Your task to perform on an android device: Open CNN.com Image 0: 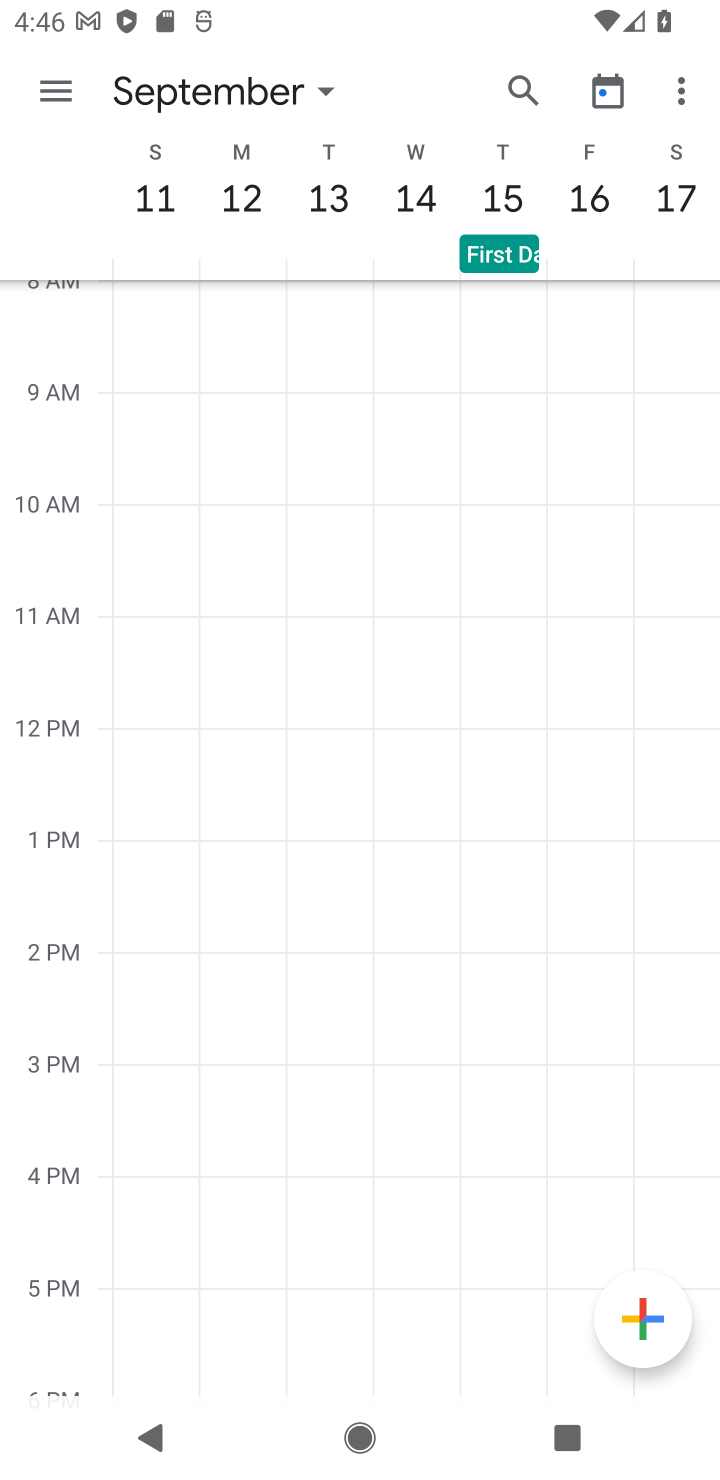
Step 0: press home button
Your task to perform on an android device: Open CNN.com Image 1: 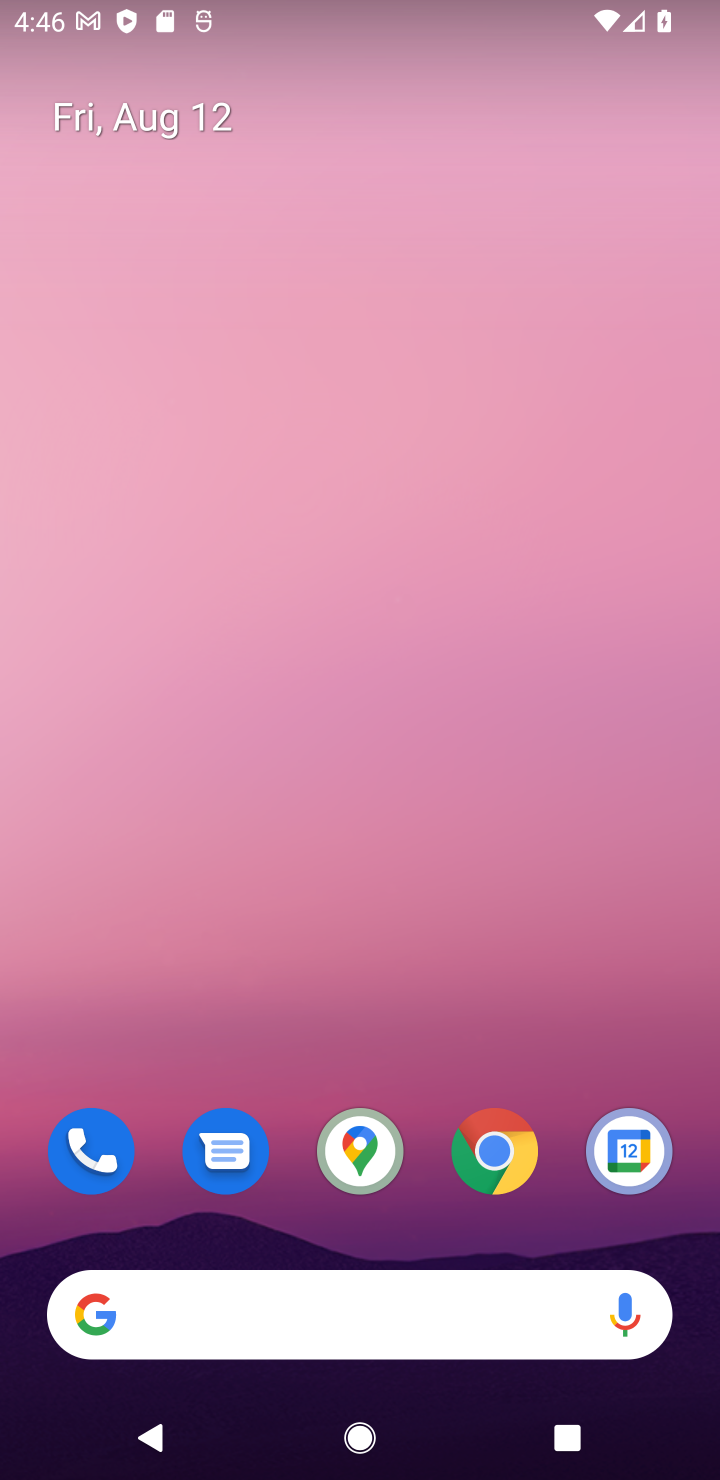
Step 1: drag from (436, 993) to (483, 15)
Your task to perform on an android device: Open CNN.com Image 2: 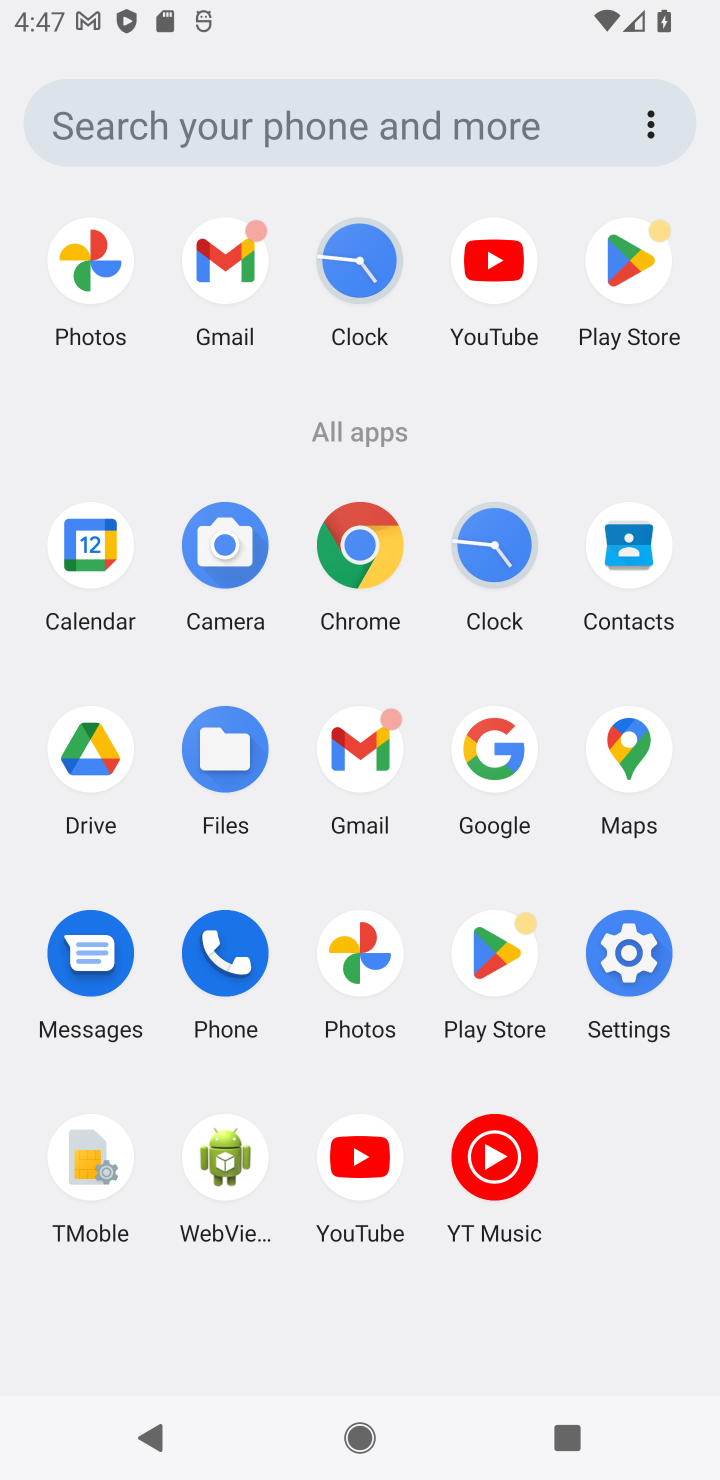
Step 2: click (360, 552)
Your task to perform on an android device: Open CNN.com Image 3: 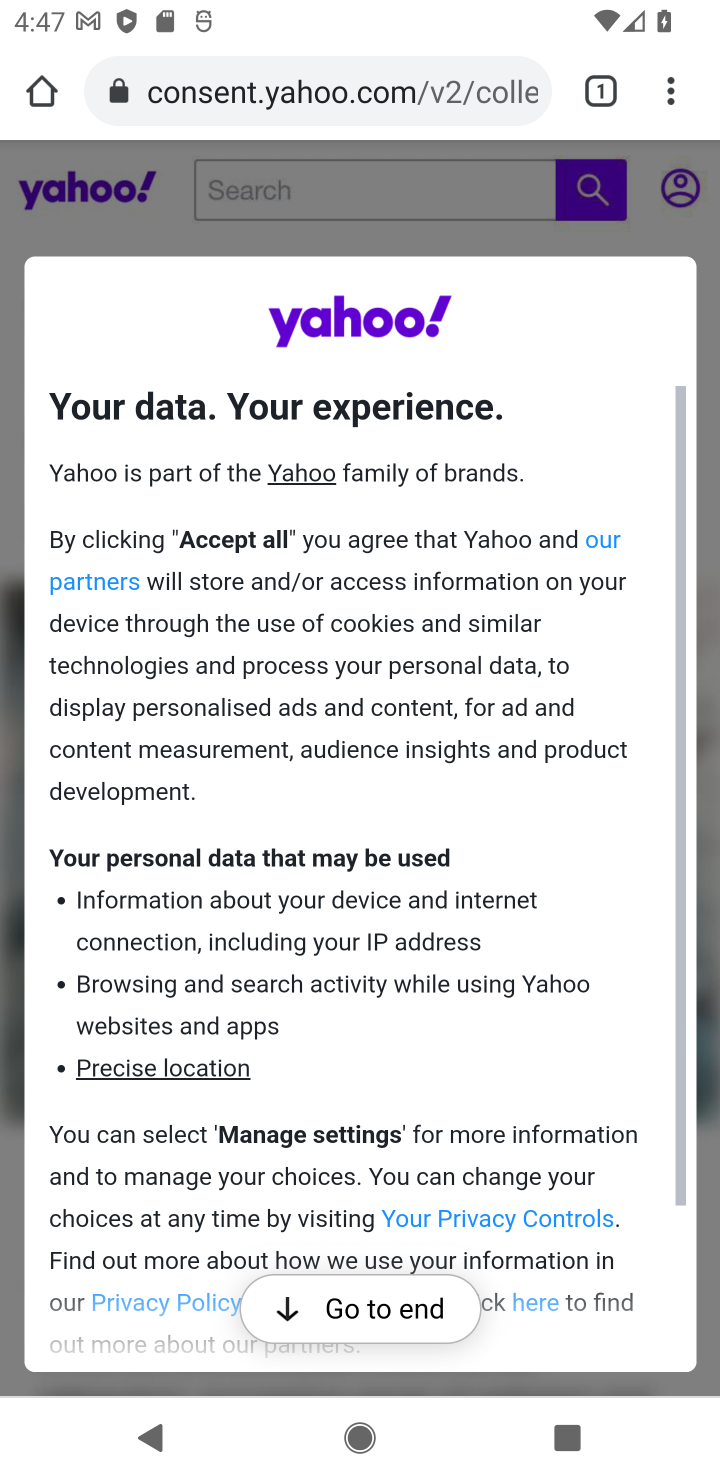
Step 3: click (448, 93)
Your task to perform on an android device: Open CNN.com Image 4: 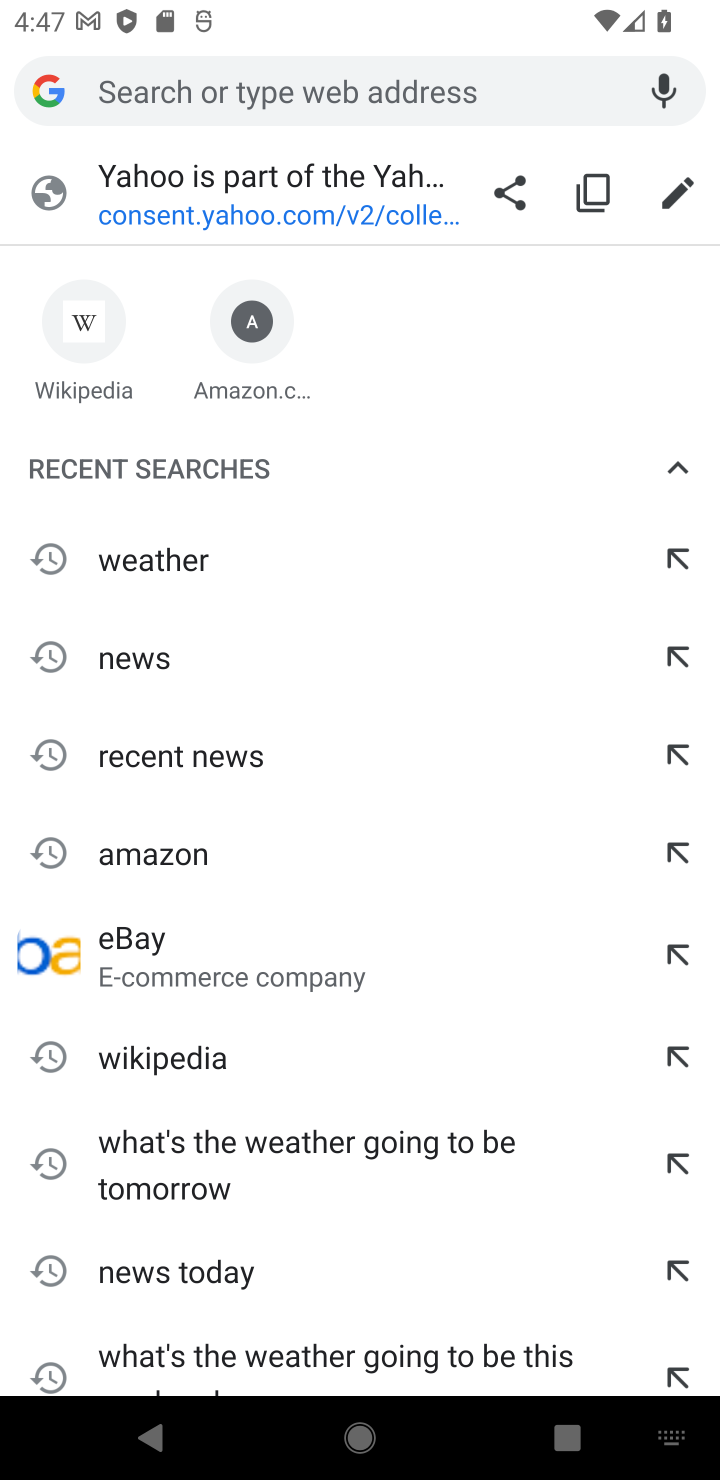
Step 4: type "cnn.com"
Your task to perform on an android device: Open CNN.com Image 5: 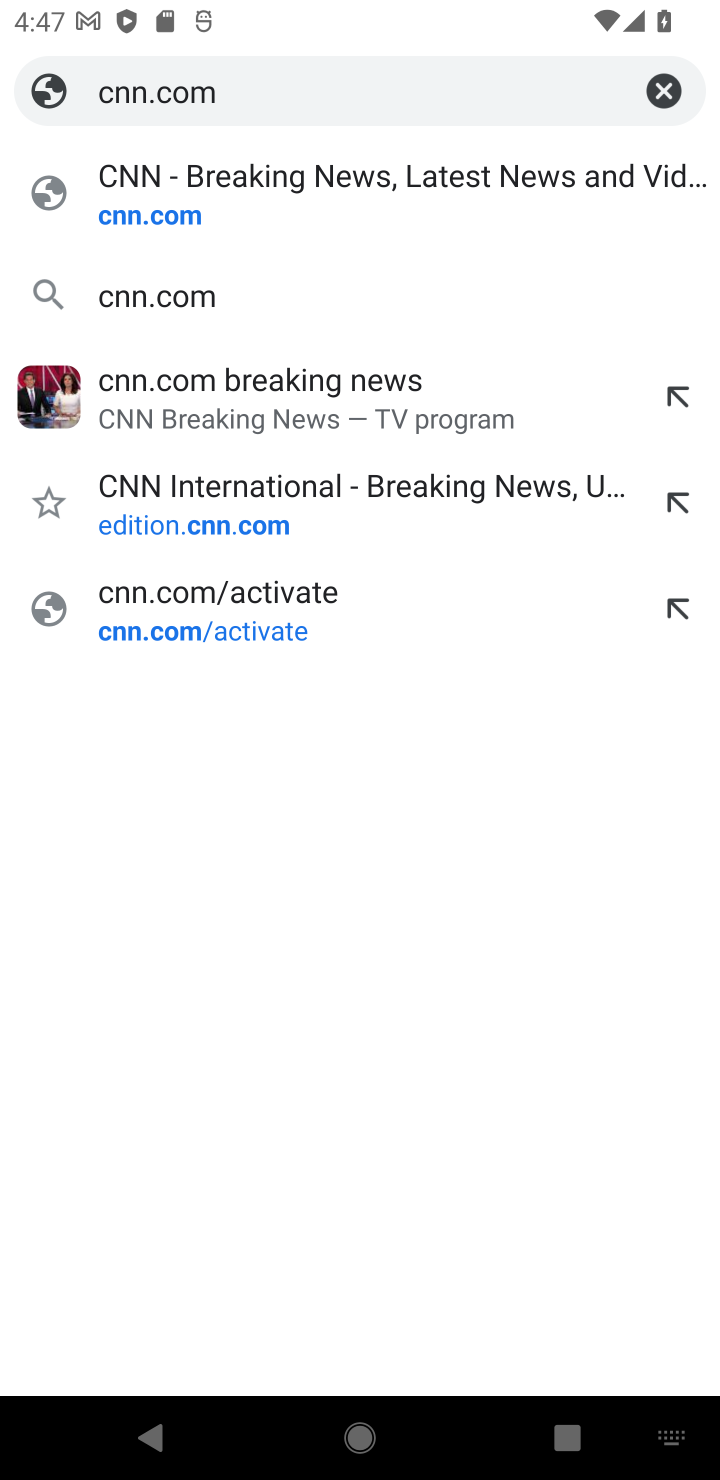
Step 5: click (110, 214)
Your task to perform on an android device: Open CNN.com Image 6: 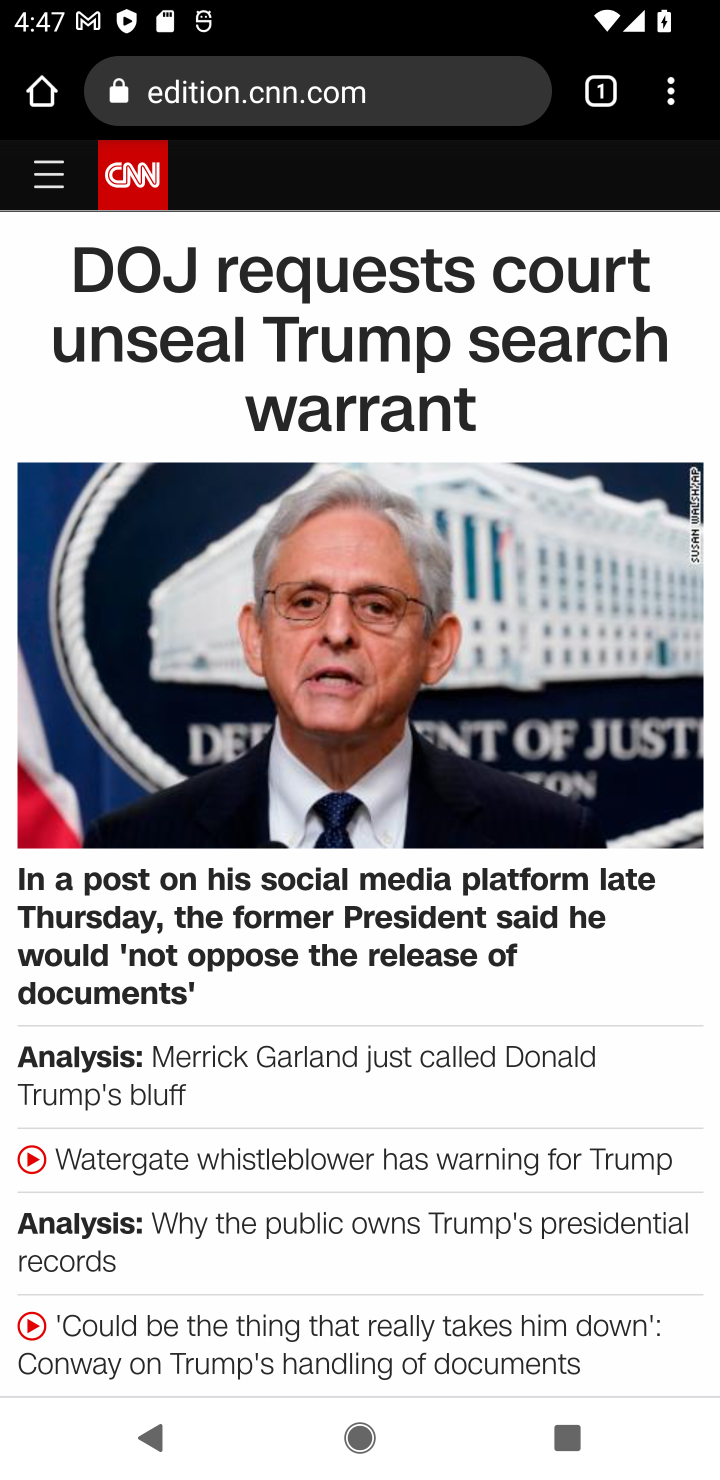
Step 6: task complete